Your task to perform on an android device: Go to wifi settings Image 0: 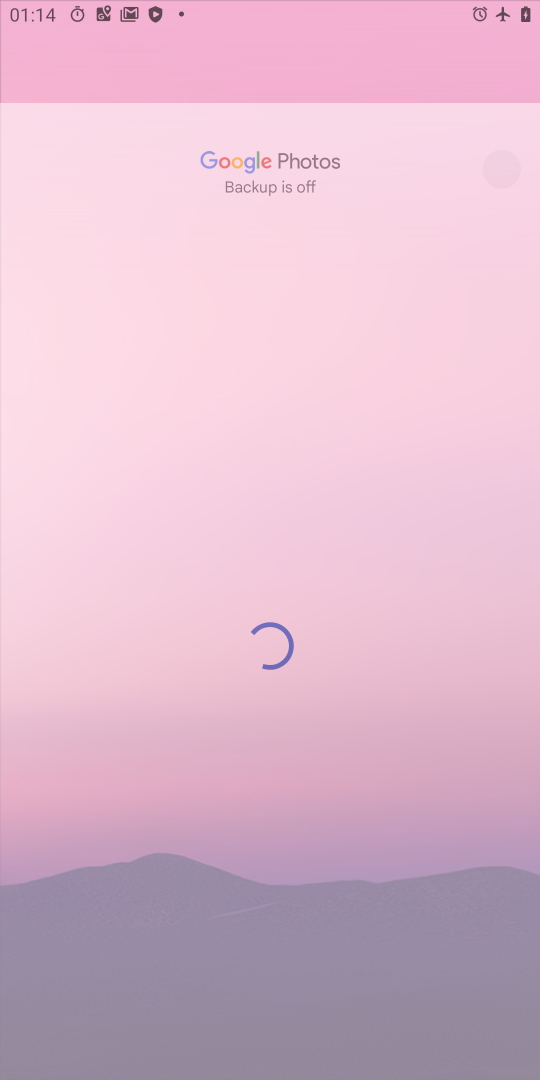
Step 0: press home button
Your task to perform on an android device: Go to wifi settings Image 1: 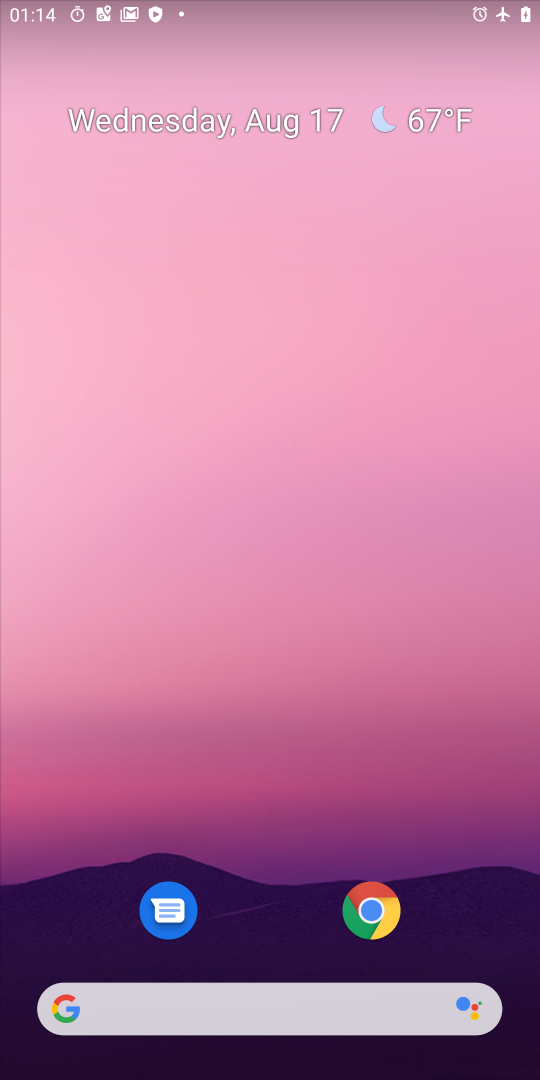
Step 1: drag from (389, 821) to (347, 14)
Your task to perform on an android device: Go to wifi settings Image 2: 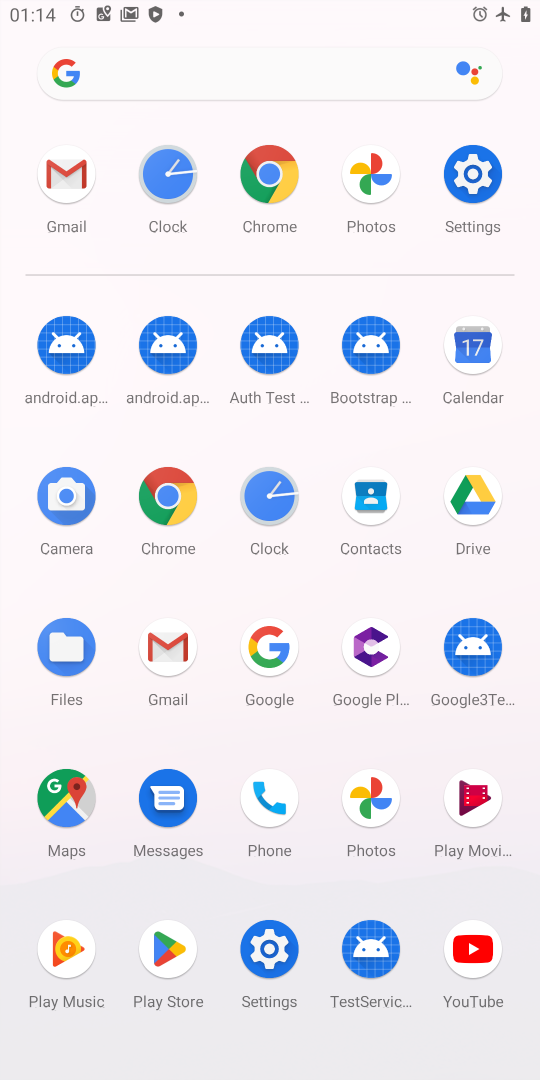
Step 2: click (262, 950)
Your task to perform on an android device: Go to wifi settings Image 3: 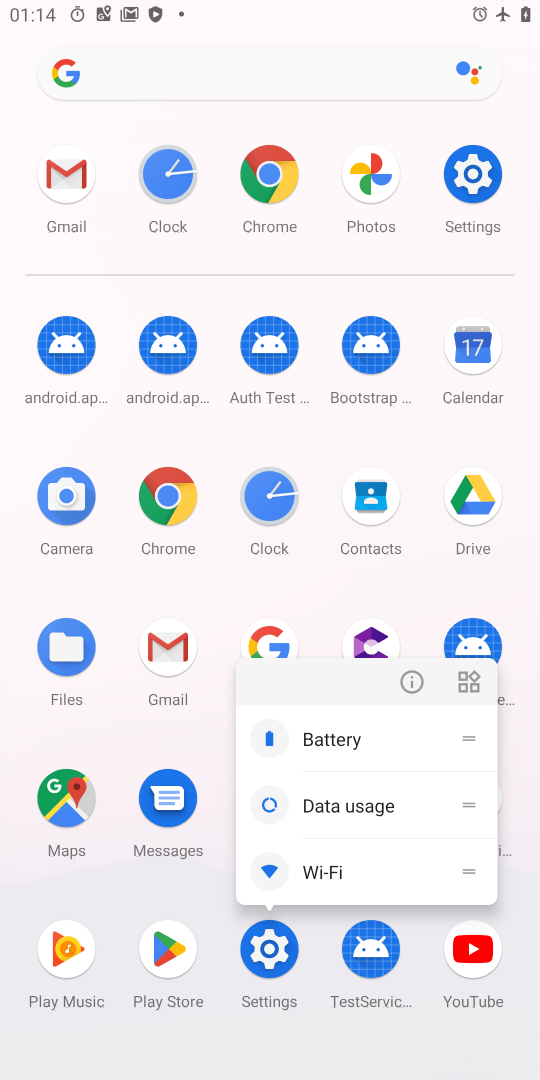
Step 3: click (262, 950)
Your task to perform on an android device: Go to wifi settings Image 4: 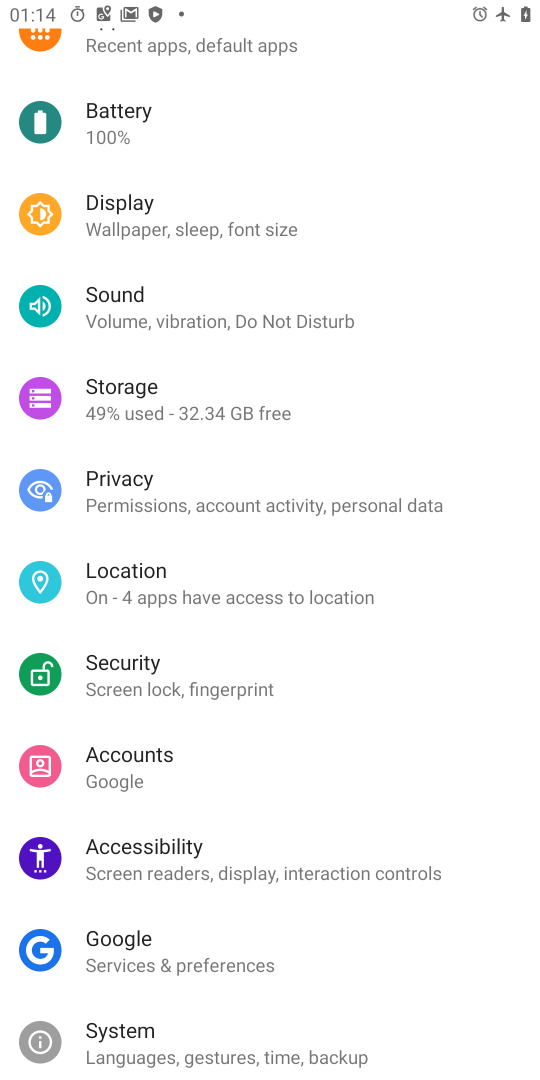
Step 4: drag from (275, 124) to (270, 866)
Your task to perform on an android device: Go to wifi settings Image 5: 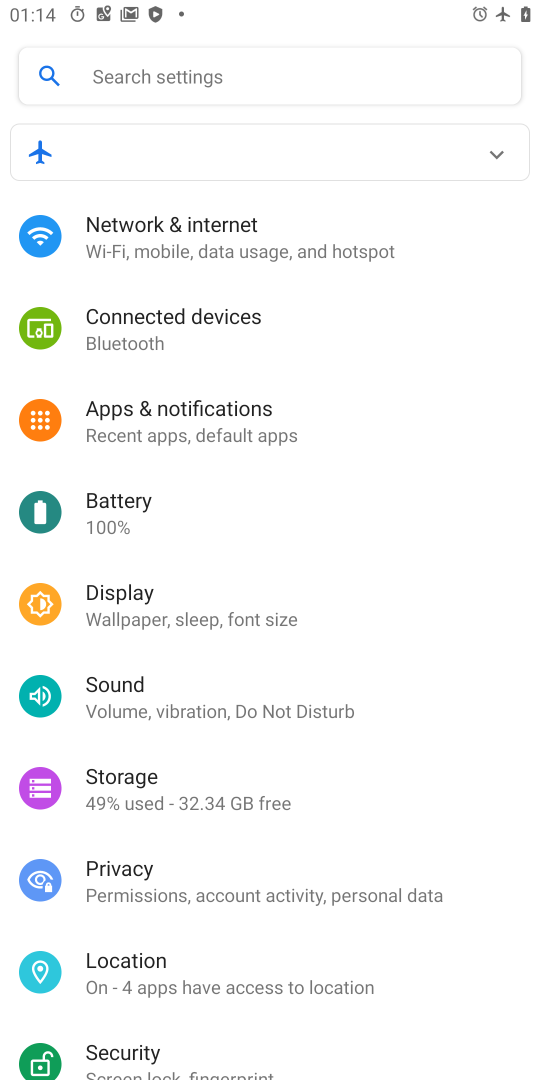
Step 5: click (214, 228)
Your task to perform on an android device: Go to wifi settings Image 6: 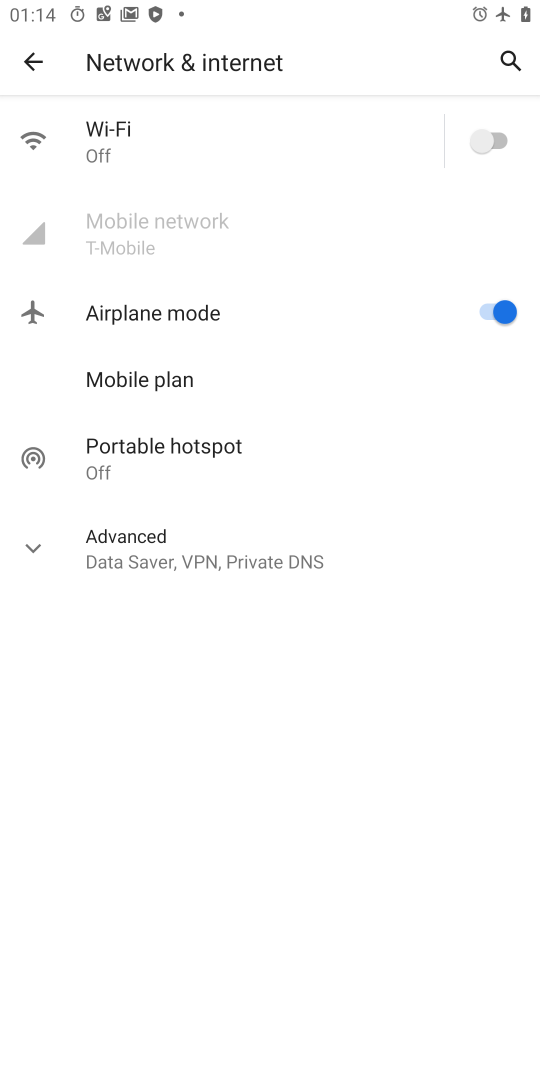
Step 6: click (355, 126)
Your task to perform on an android device: Go to wifi settings Image 7: 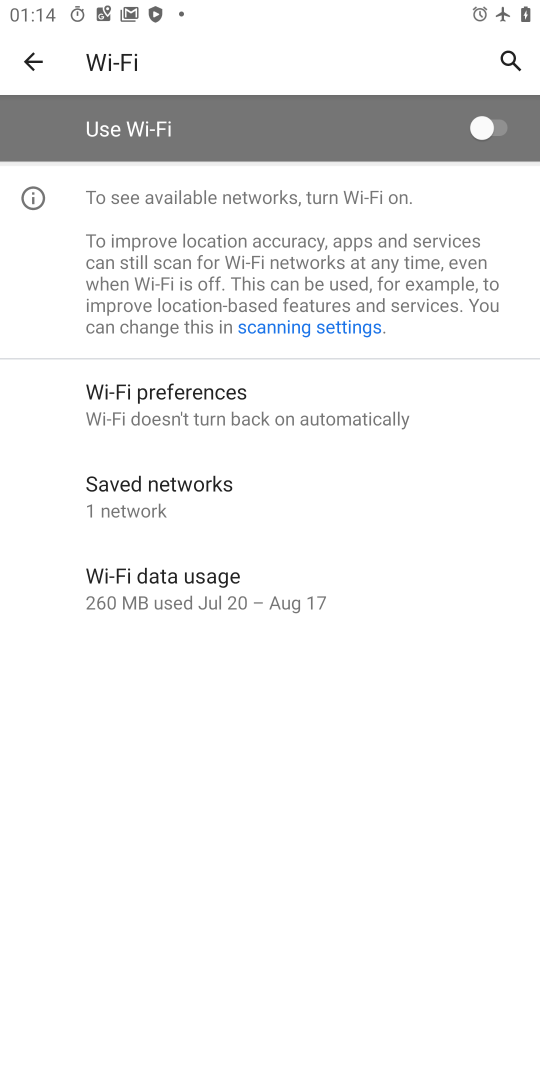
Step 7: click (480, 133)
Your task to perform on an android device: Go to wifi settings Image 8: 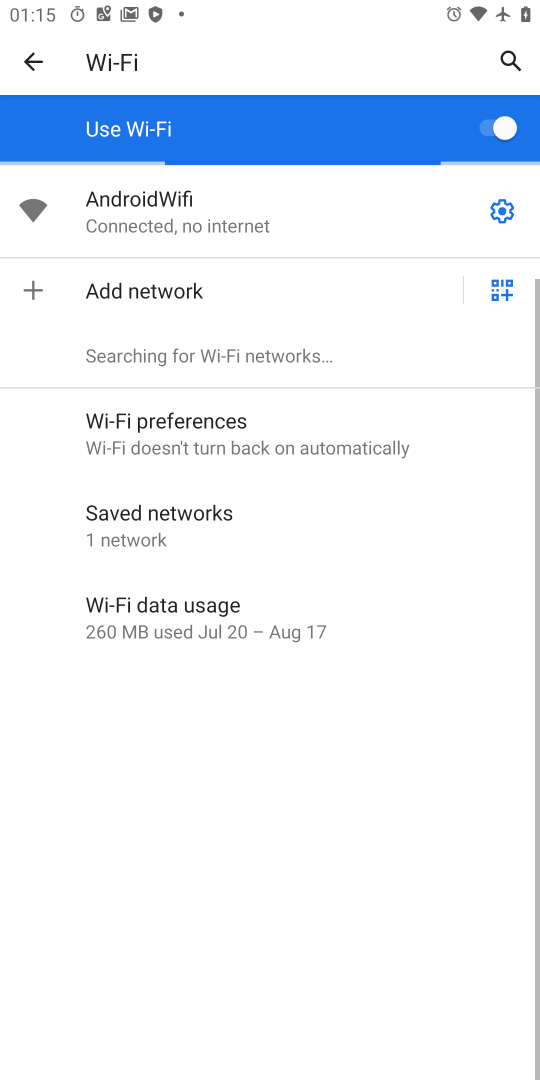
Step 8: click (500, 210)
Your task to perform on an android device: Go to wifi settings Image 9: 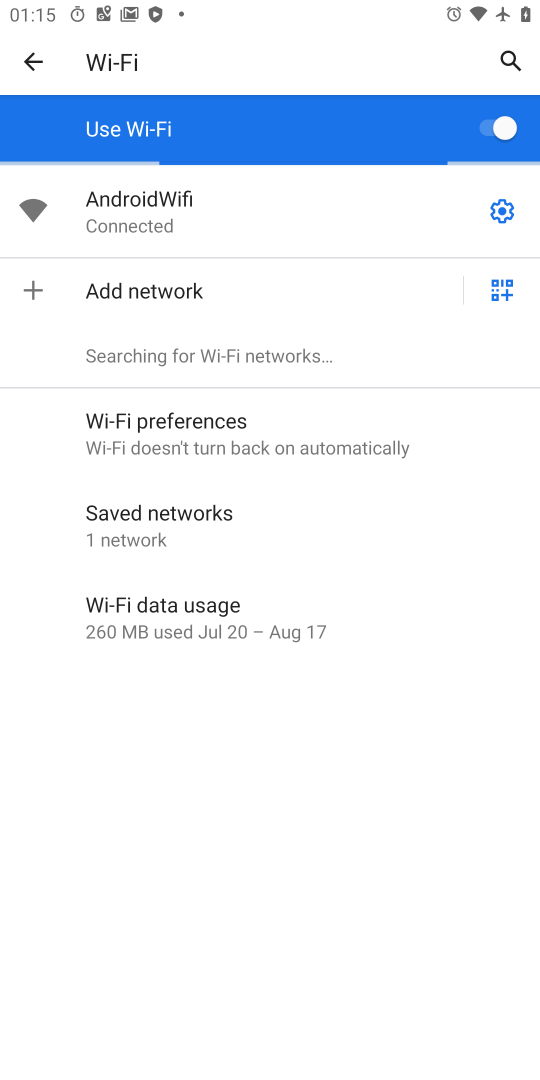
Step 9: click (502, 210)
Your task to perform on an android device: Go to wifi settings Image 10: 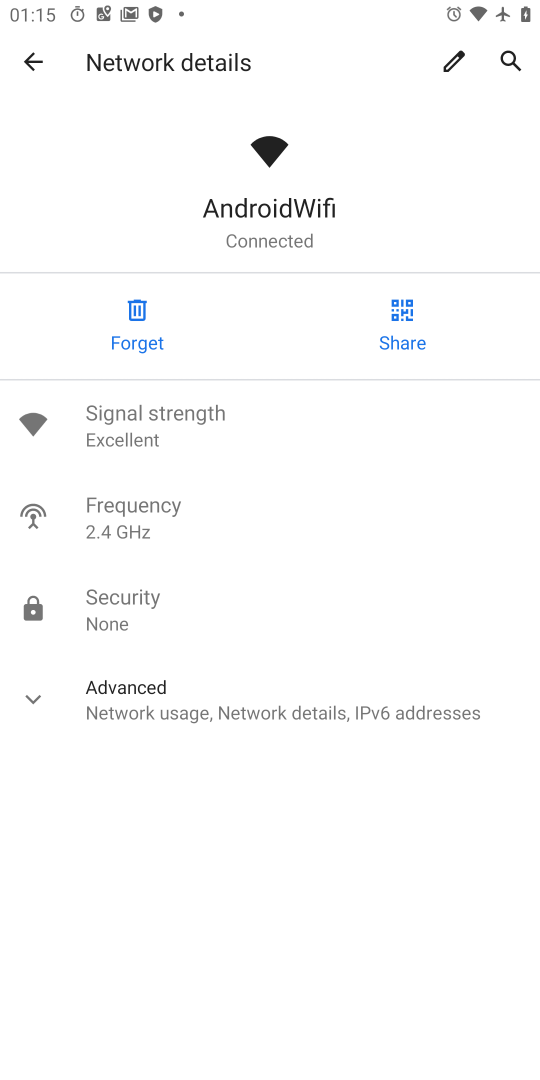
Step 10: task complete